Your task to perform on an android device: turn off wifi Image 0: 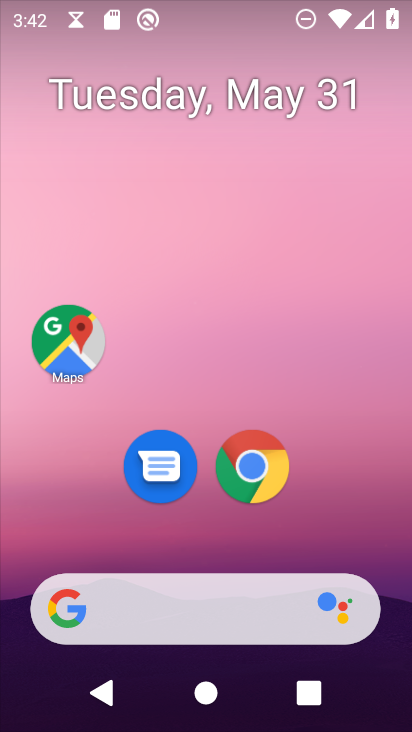
Step 0: click (218, 1)
Your task to perform on an android device: turn off wifi Image 1: 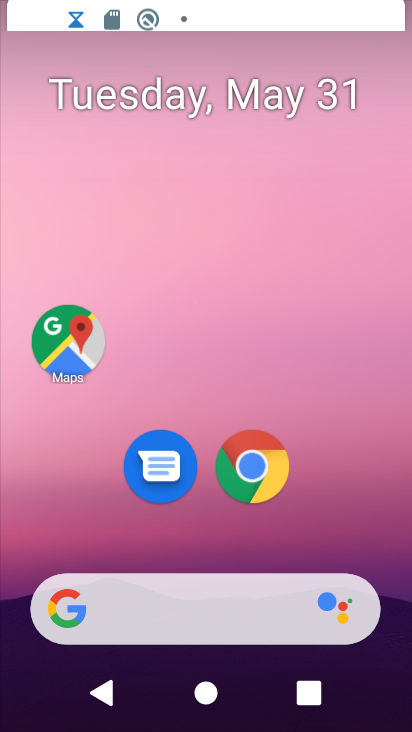
Step 1: drag from (215, 9) to (290, 592)
Your task to perform on an android device: turn off wifi Image 2: 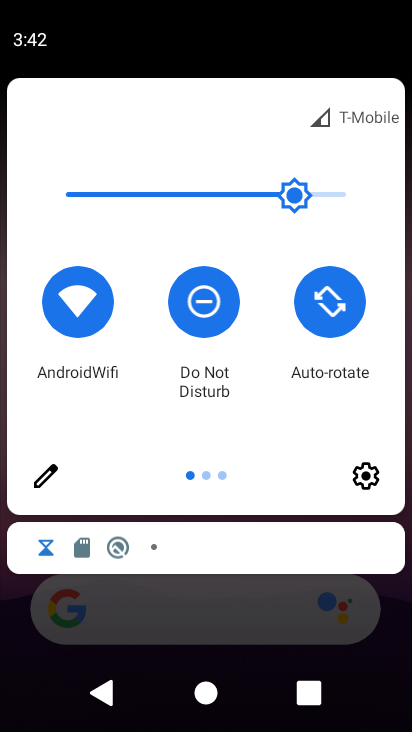
Step 2: click (58, 206)
Your task to perform on an android device: turn off wifi Image 3: 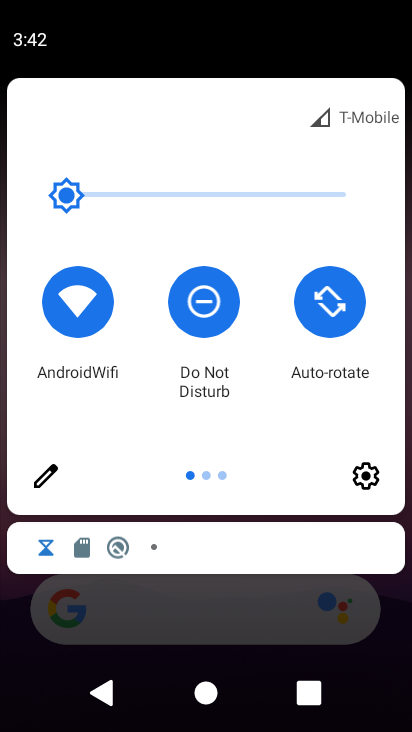
Step 3: click (245, 196)
Your task to perform on an android device: turn off wifi Image 4: 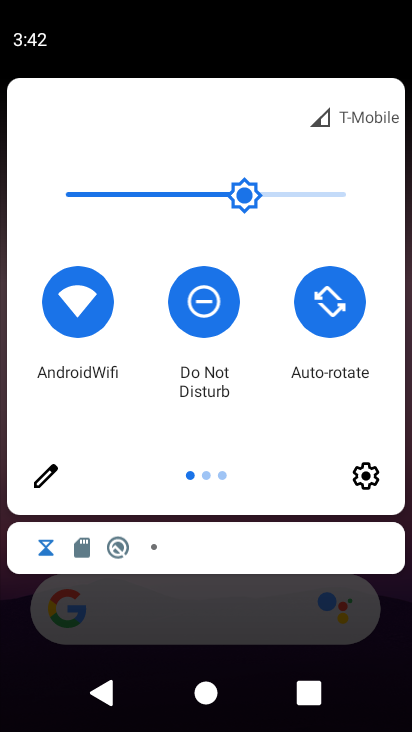
Step 4: click (80, 296)
Your task to perform on an android device: turn off wifi Image 5: 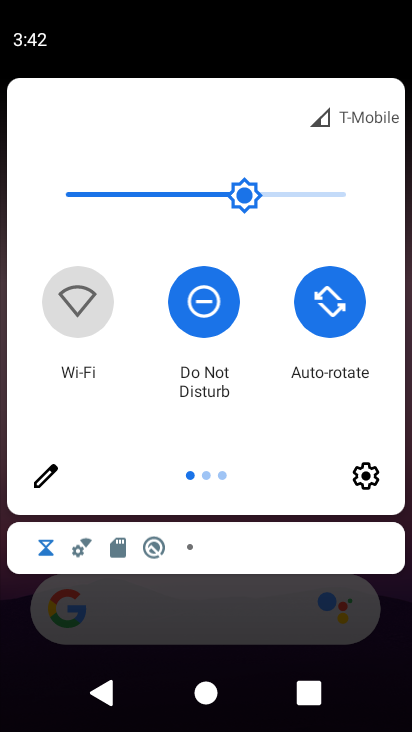
Step 5: task complete